Your task to perform on an android device: check battery use Image 0: 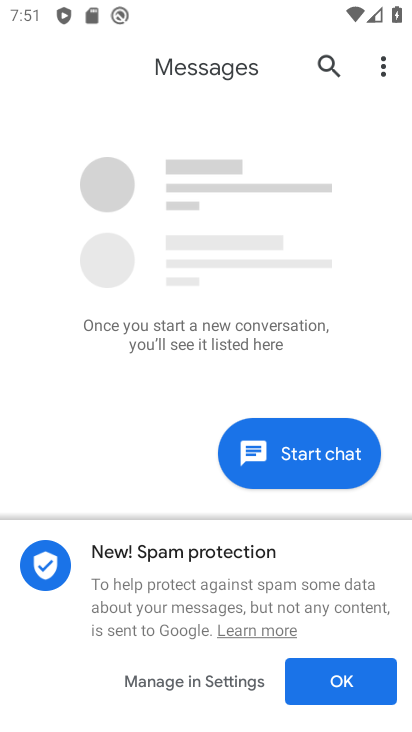
Step 0: press home button
Your task to perform on an android device: check battery use Image 1: 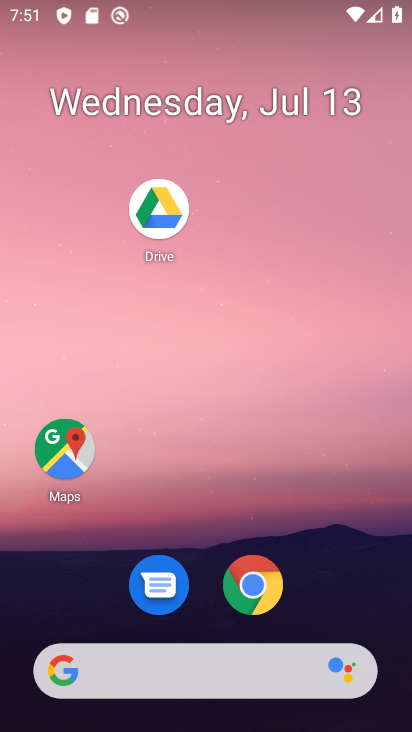
Step 1: drag from (171, 686) to (235, 252)
Your task to perform on an android device: check battery use Image 2: 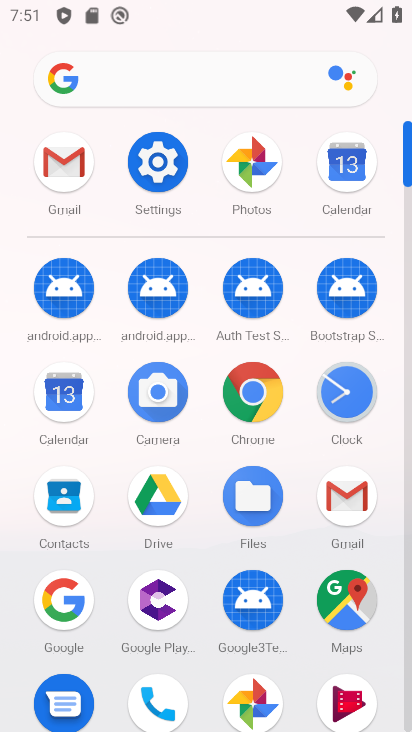
Step 2: click (161, 161)
Your task to perform on an android device: check battery use Image 3: 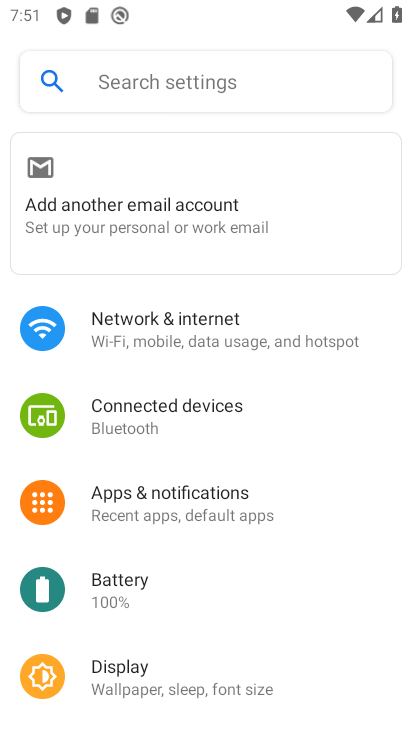
Step 3: click (130, 580)
Your task to perform on an android device: check battery use Image 4: 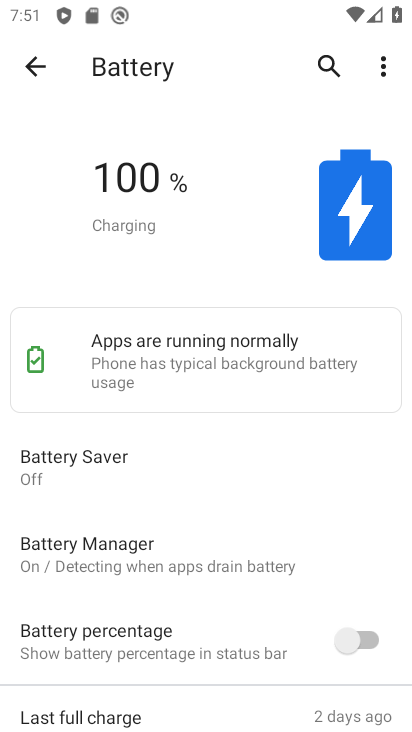
Step 4: click (382, 66)
Your task to perform on an android device: check battery use Image 5: 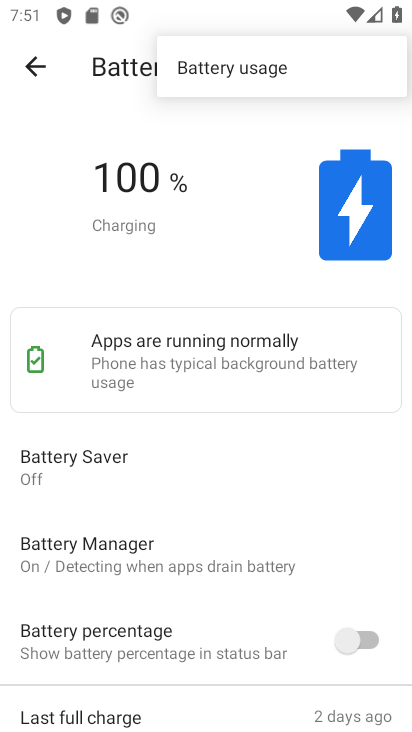
Step 5: click (312, 73)
Your task to perform on an android device: check battery use Image 6: 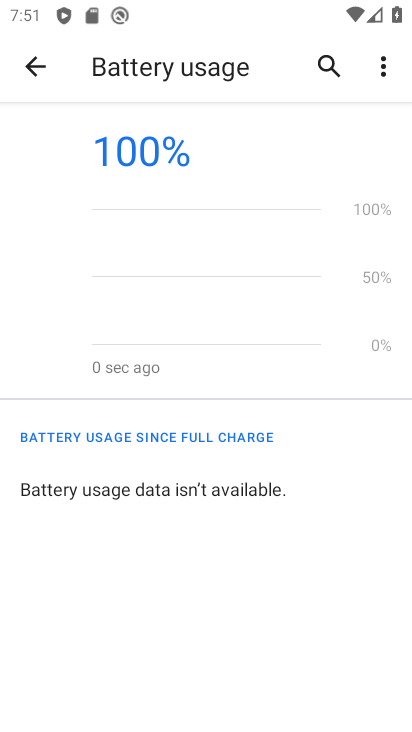
Step 6: task complete